Your task to perform on an android device: add a contact in the contacts app Image 0: 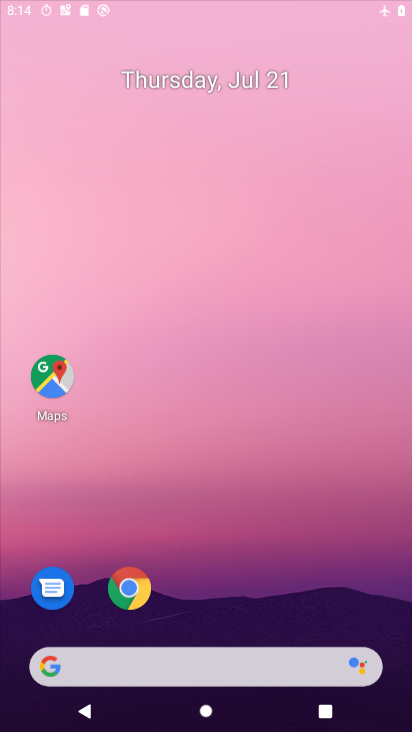
Step 0: drag from (219, 44) to (392, 119)
Your task to perform on an android device: add a contact in the contacts app Image 1: 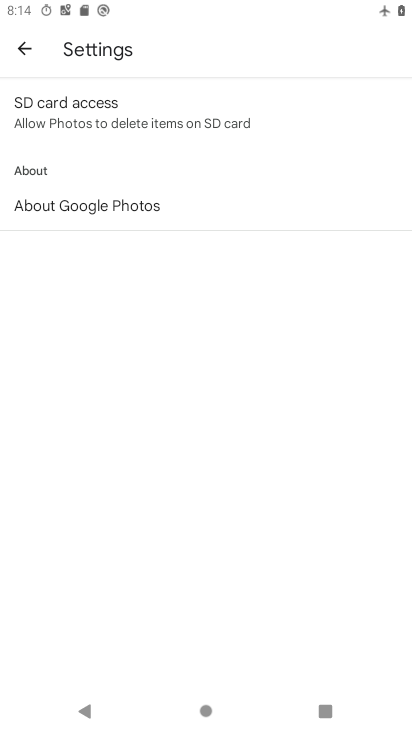
Step 1: click (24, 50)
Your task to perform on an android device: add a contact in the contacts app Image 2: 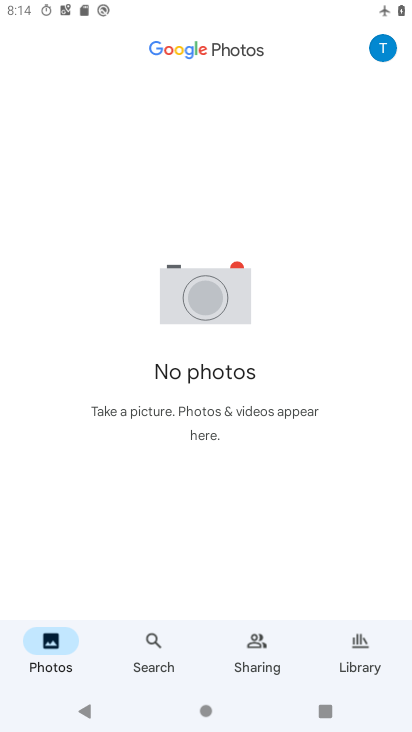
Step 2: press back button
Your task to perform on an android device: add a contact in the contacts app Image 3: 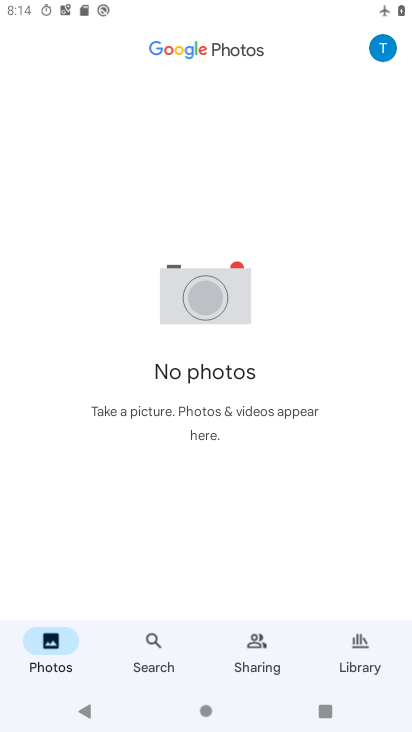
Step 3: press back button
Your task to perform on an android device: add a contact in the contacts app Image 4: 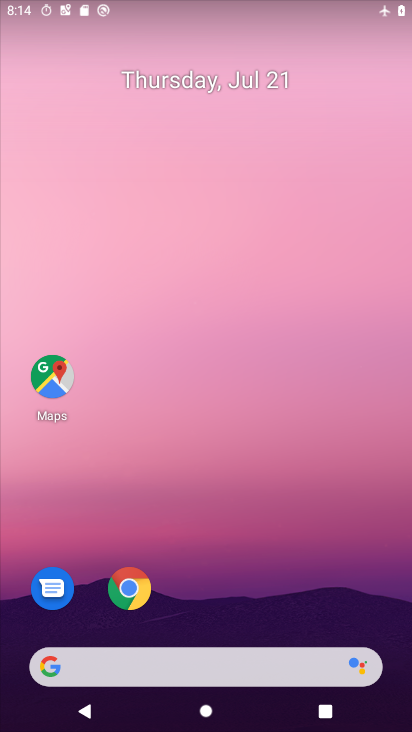
Step 4: drag from (270, 643) to (217, 191)
Your task to perform on an android device: add a contact in the contacts app Image 5: 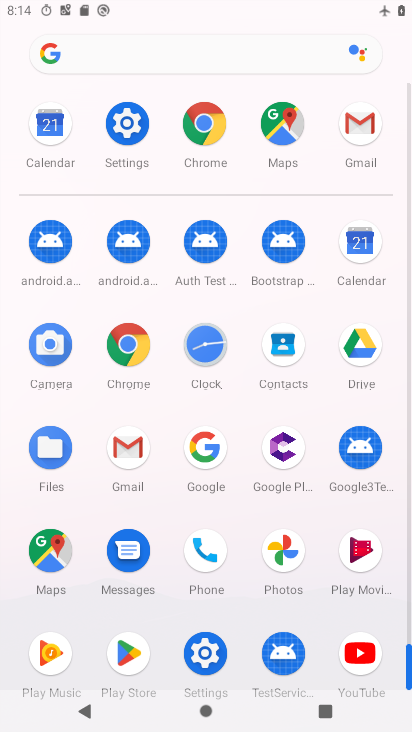
Step 5: click (275, 336)
Your task to perform on an android device: add a contact in the contacts app Image 6: 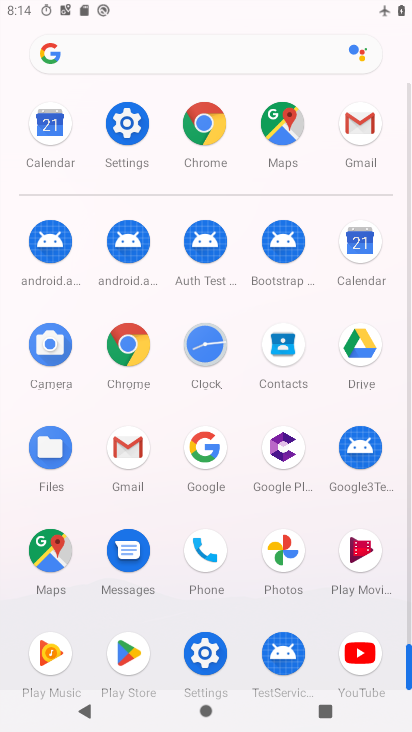
Step 6: click (275, 338)
Your task to perform on an android device: add a contact in the contacts app Image 7: 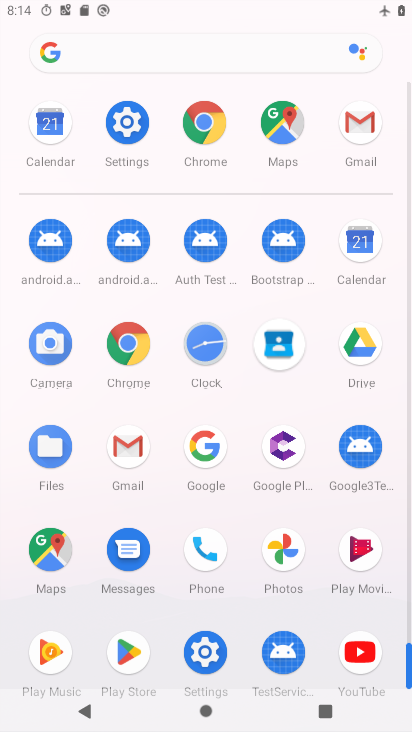
Step 7: click (277, 339)
Your task to perform on an android device: add a contact in the contacts app Image 8: 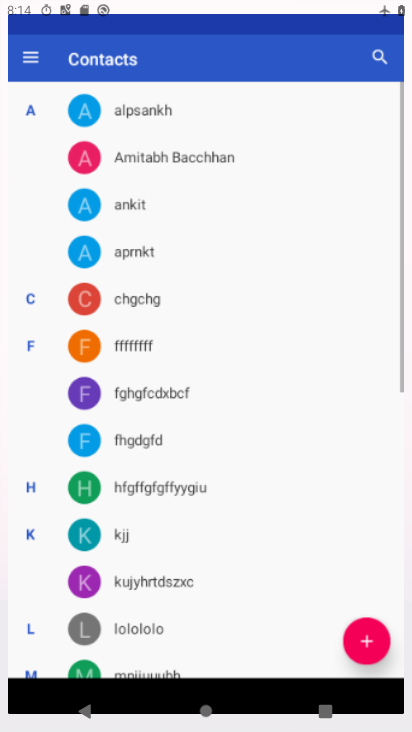
Step 8: click (278, 339)
Your task to perform on an android device: add a contact in the contacts app Image 9: 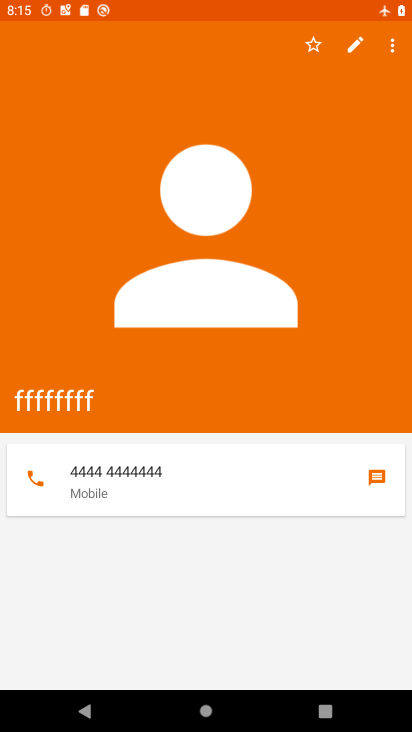
Step 9: press back button
Your task to perform on an android device: add a contact in the contacts app Image 10: 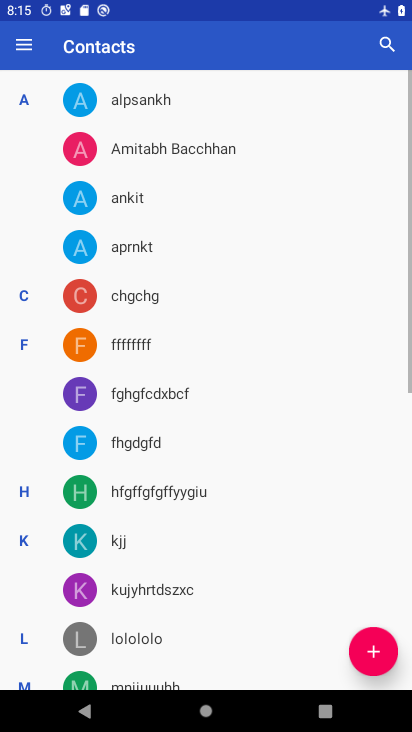
Step 10: click (374, 643)
Your task to perform on an android device: add a contact in the contacts app Image 11: 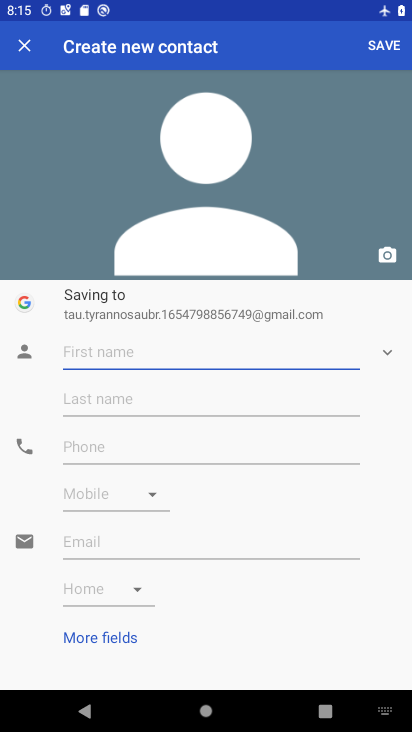
Step 11: type "gfyghbghhg"
Your task to perform on an android device: add a contact in the contacts app Image 12: 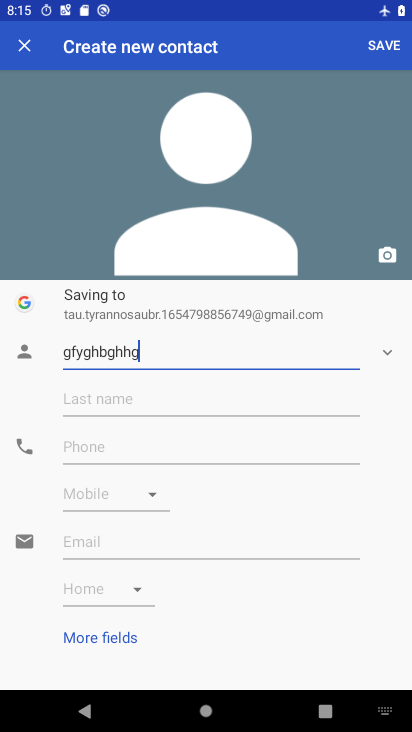
Step 12: click (85, 453)
Your task to perform on an android device: add a contact in the contacts app Image 13: 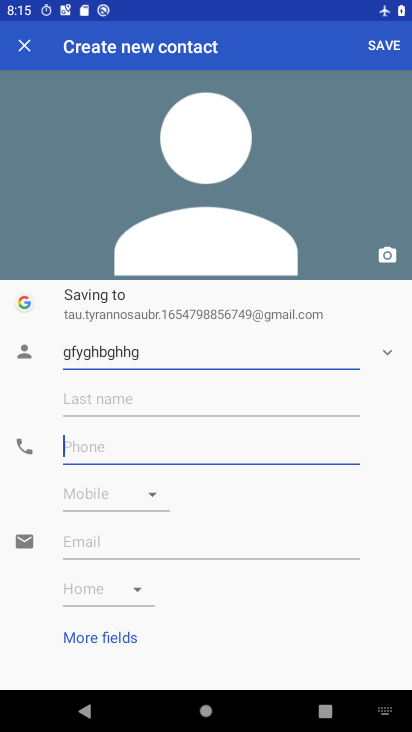
Step 13: click (85, 453)
Your task to perform on an android device: add a contact in the contacts app Image 14: 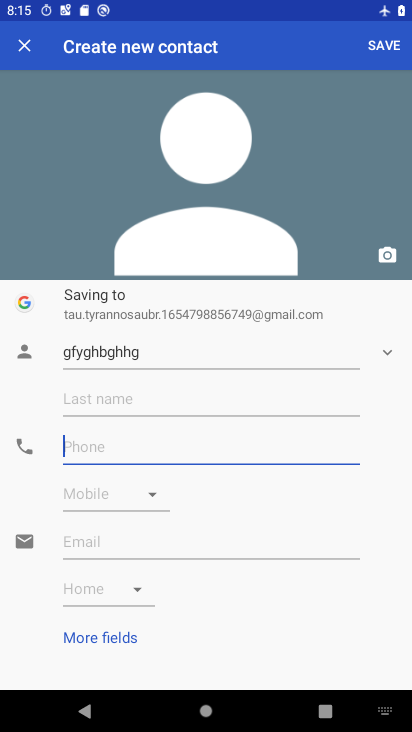
Step 14: click (85, 453)
Your task to perform on an android device: add a contact in the contacts app Image 15: 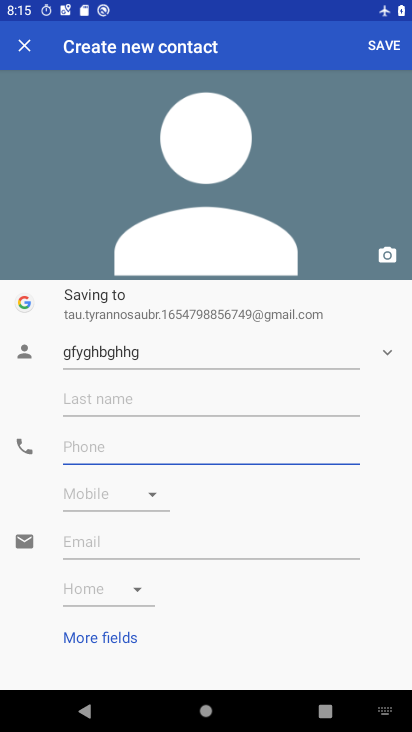
Step 15: click (85, 453)
Your task to perform on an android device: add a contact in the contacts app Image 16: 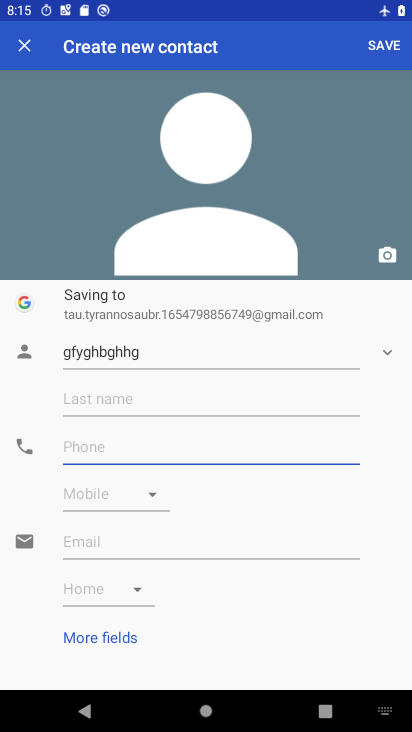
Step 16: type "65r676768787"
Your task to perform on an android device: add a contact in the contacts app Image 17: 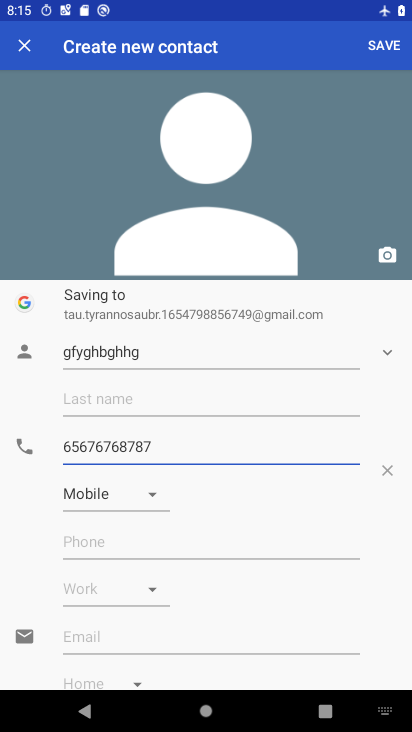
Step 17: click (391, 45)
Your task to perform on an android device: add a contact in the contacts app Image 18: 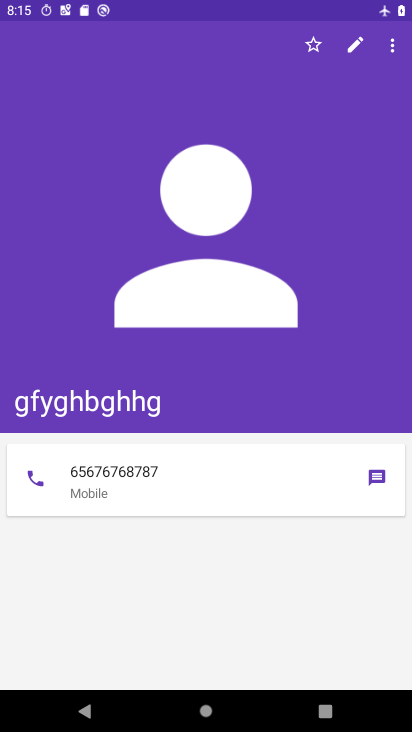
Step 18: task complete